Your task to perform on an android device: Open calendar and show me the fourth week of next month Image 0: 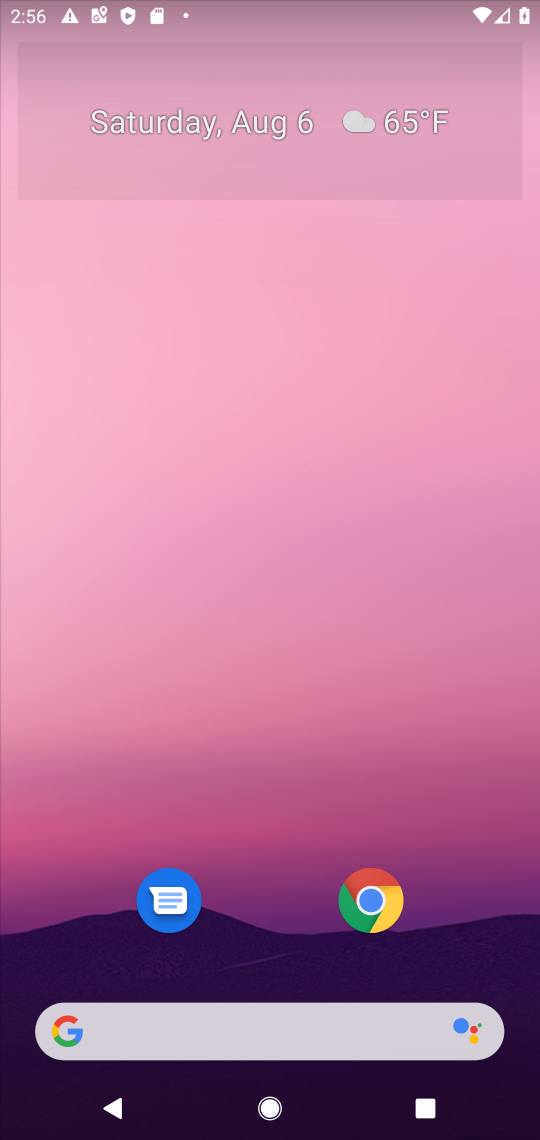
Step 0: press home button
Your task to perform on an android device: Open calendar and show me the fourth week of next month Image 1: 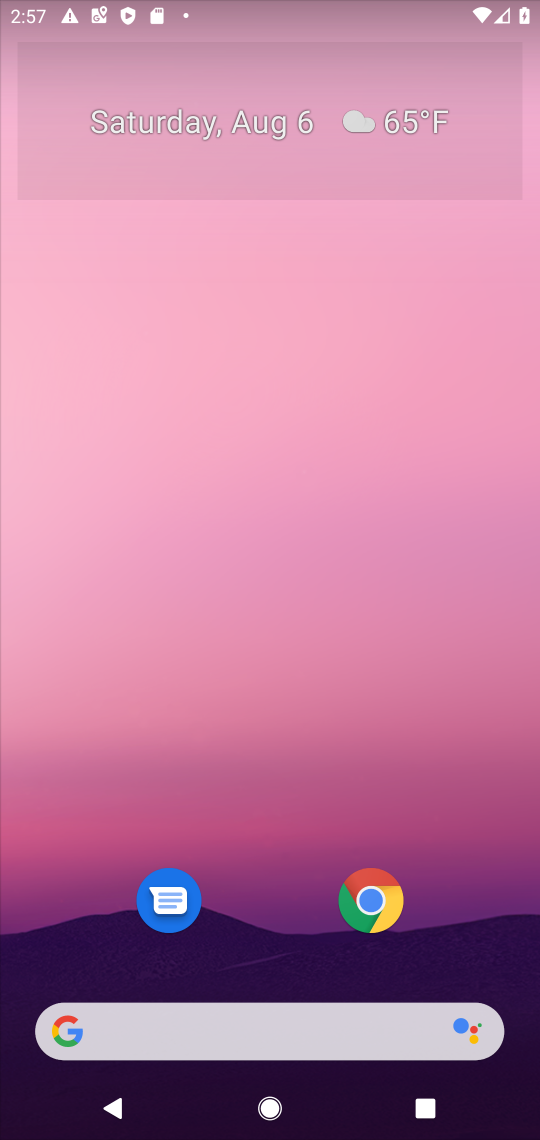
Step 1: drag from (276, 951) to (250, 235)
Your task to perform on an android device: Open calendar and show me the fourth week of next month Image 2: 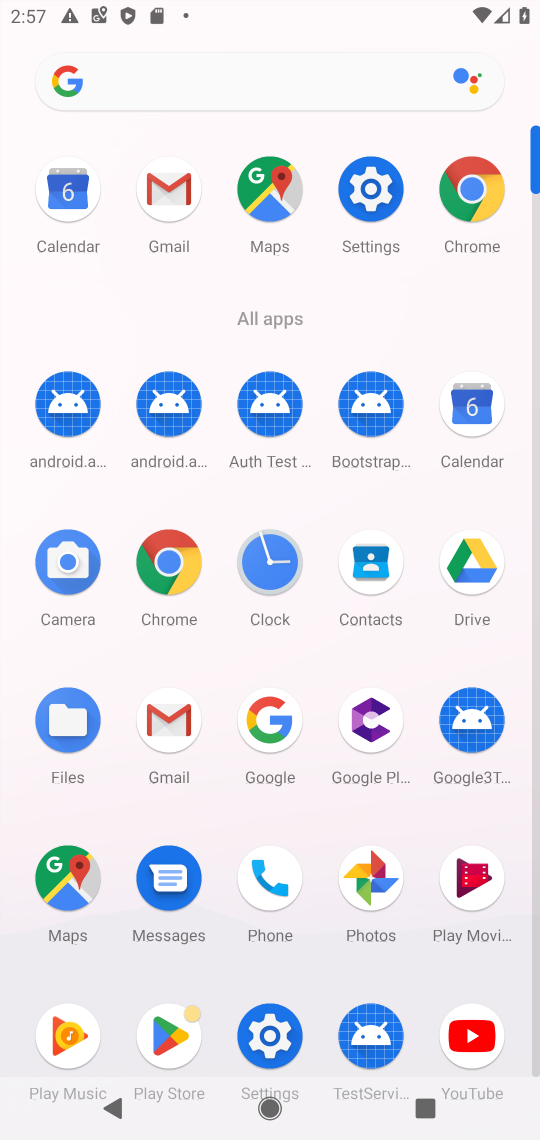
Step 2: click (473, 391)
Your task to perform on an android device: Open calendar and show me the fourth week of next month Image 3: 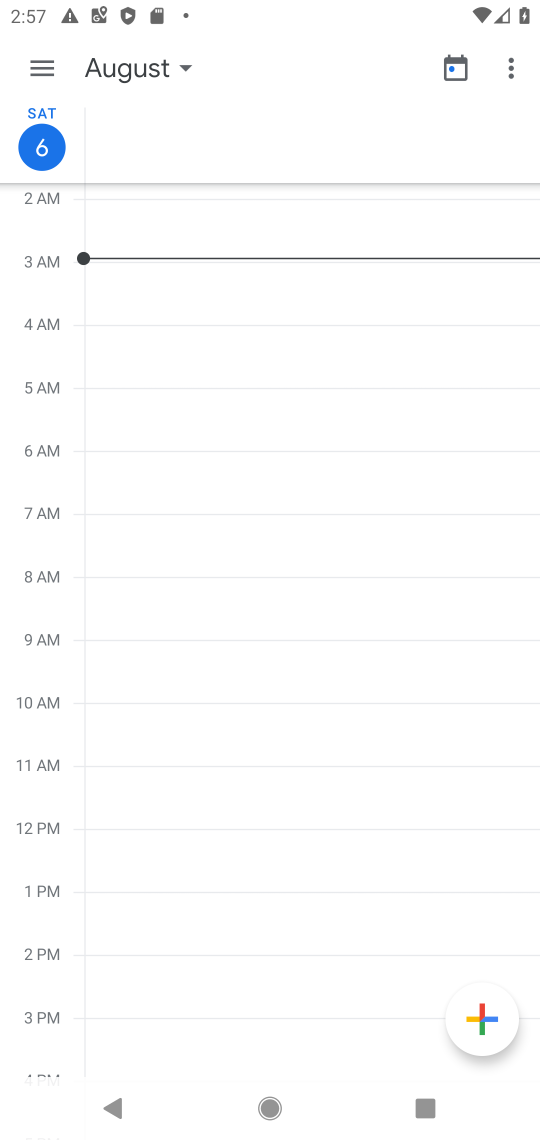
Step 3: click (25, 71)
Your task to perform on an android device: Open calendar and show me the fourth week of next month Image 4: 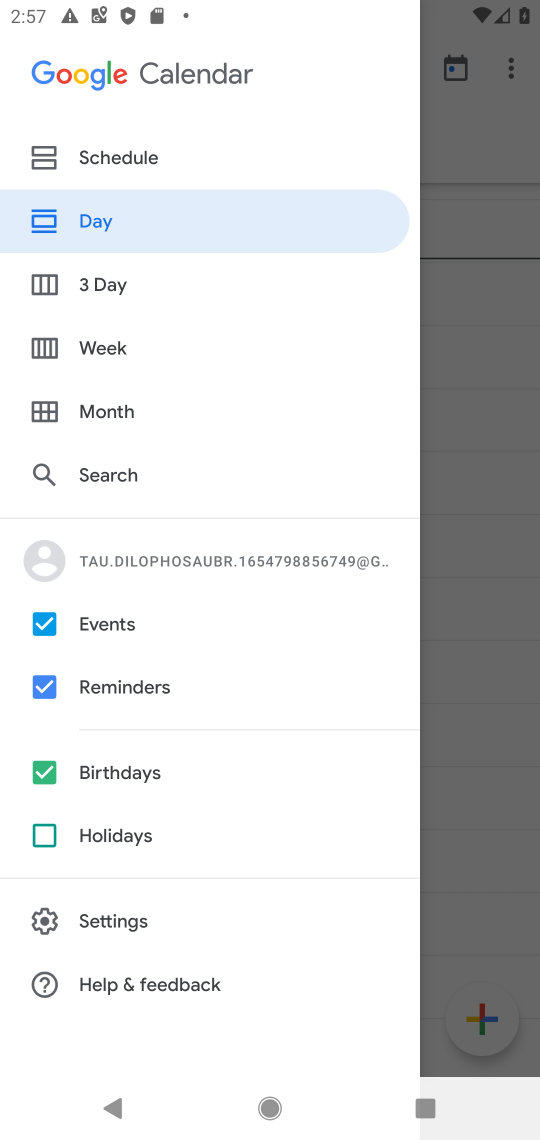
Step 4: click (107, 405)
Your task to perform on an android device: Open calendar and show me the fourth week of next month Image 5: 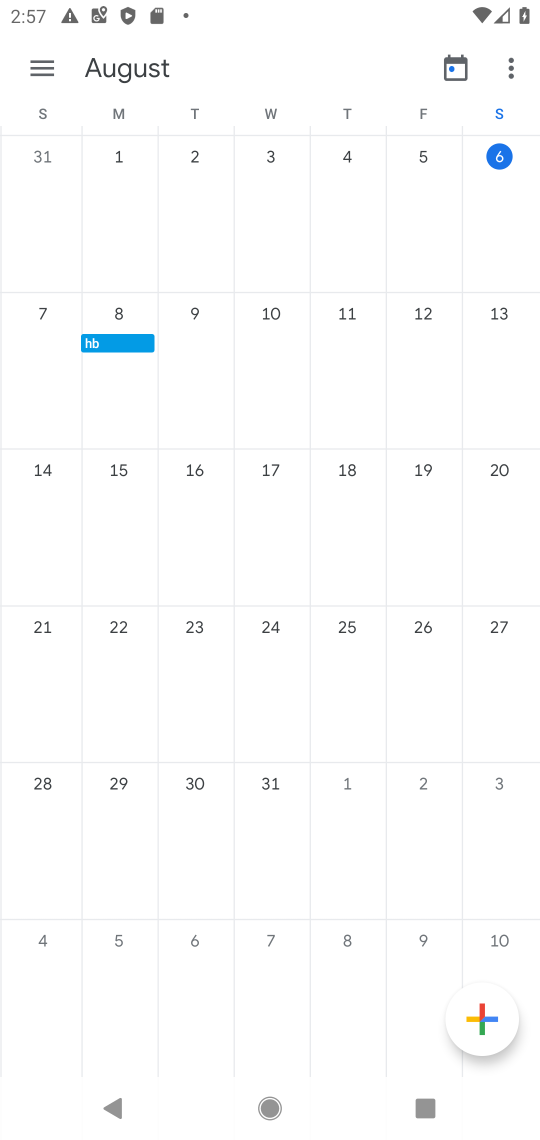
Step 5: task complete